Your task to perform on an android device: toggle wifi Image 0: 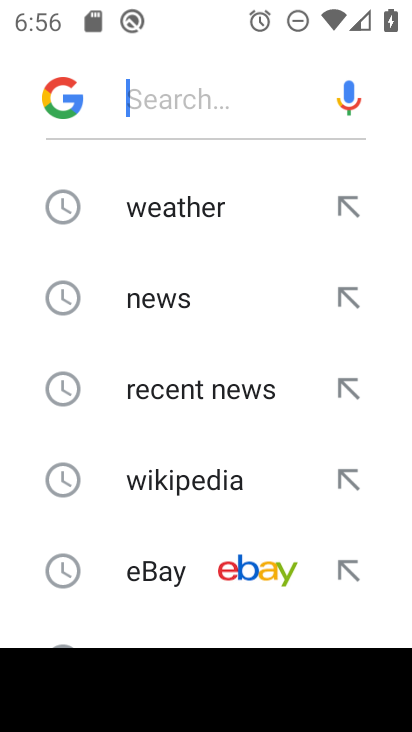
Step 0: press home button
Your task to perform on an android device: toggle wifi Image 1: 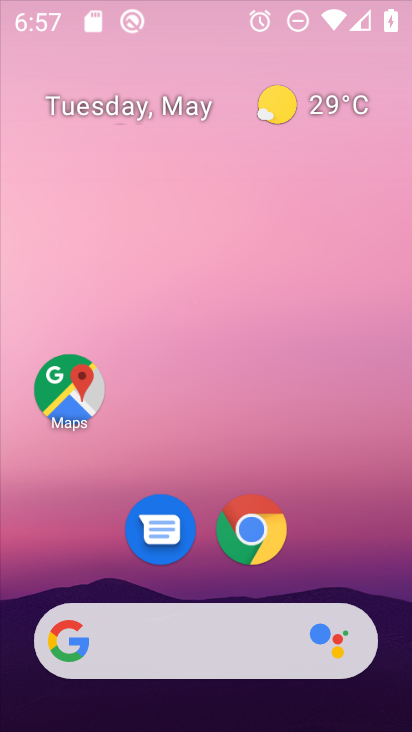
Step 1: drag from (194, 12) to (212, 532)
Your task to perform on an android device: toggle wifi Image 2: 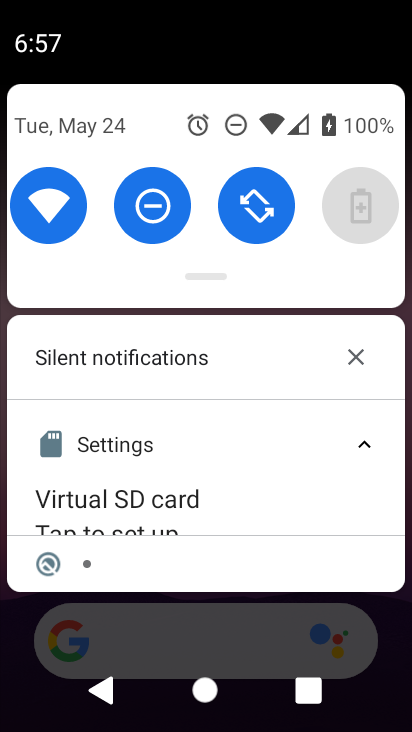
Step 2: click (43, 185)
Your task to perform on an android device: toggle wifi Image 3: 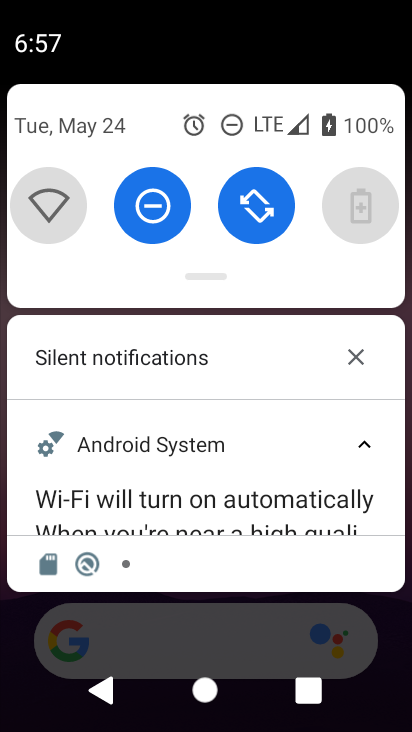
Step 3: task complete